Your task to perform on an android device: toggle sleep mode Image 0: 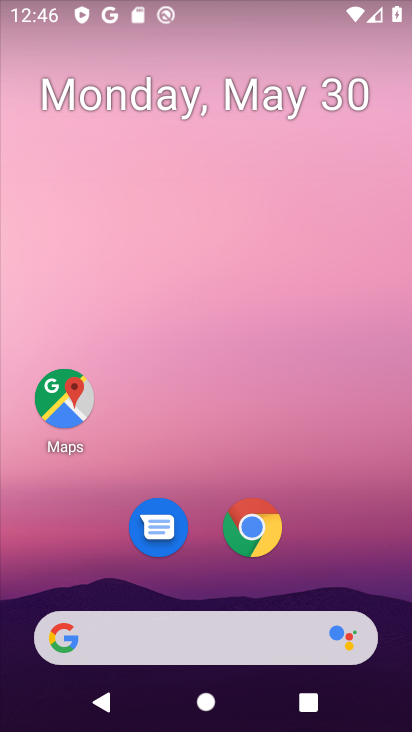
Step 0: drag from (351, 558) to (276, 39)
Your task to perform on an android device: toggle sleep mode Image 1: 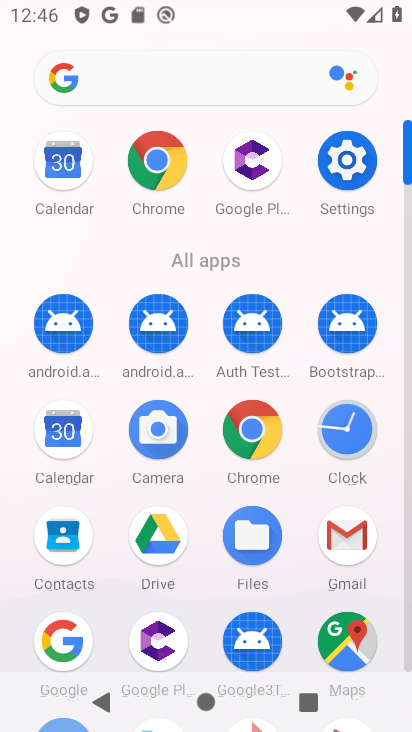
Step 1: click (358, 183)
Your task to perform on an android device: toggle sleep mode Image 2: 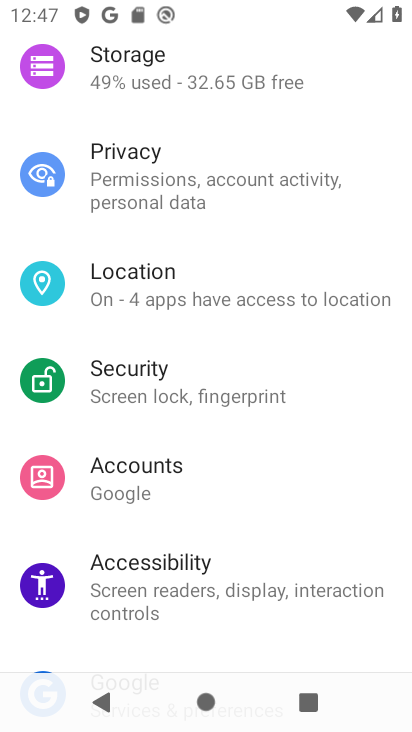
Step 2: drag from (264, 239) to (252, 491)
Your task to perform on an android device: toggle sleep mode Image 3: 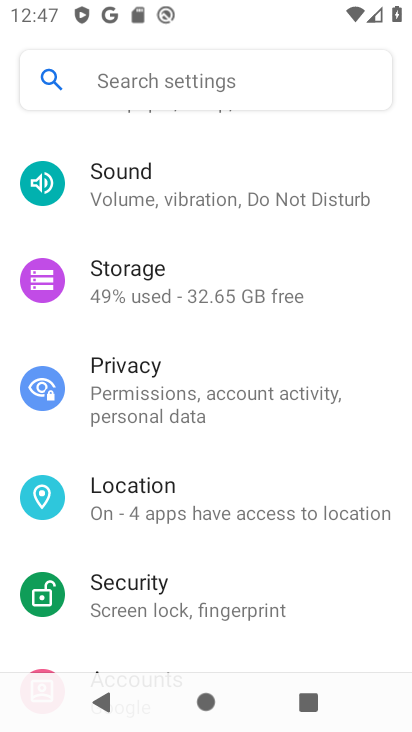
Step 3: drag from (271, 287) to (279, 437)
Your task to perform on an android device: toggle sleep mode Image 4: 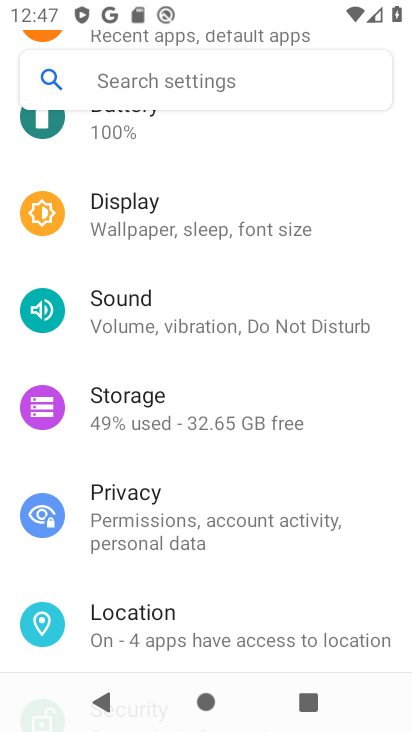
Step 4: click (224, 220)
Your task to perform on an android device: toggle sleep mode Image 5: 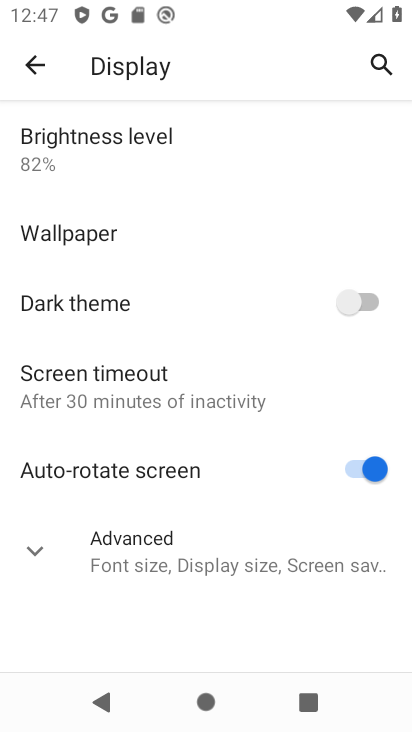
Step 5: click (252, 544)
Your task to perform on an android device: toggle sleep mode Image 6: 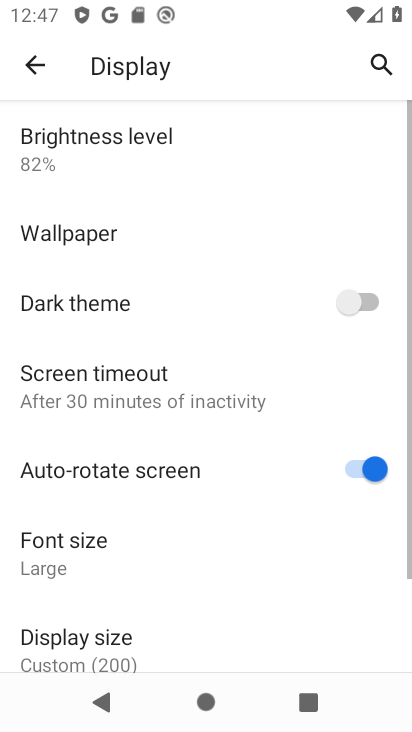
Step 6: task complete